Your task to perform on an android device: check out phone information Image 0: 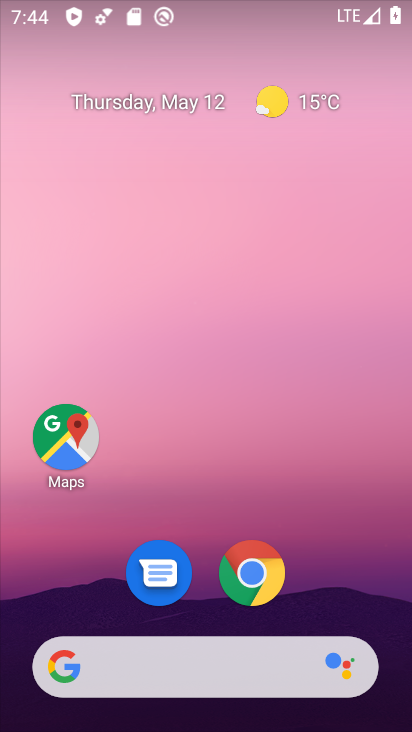
Step 0: drag from (219, 502) to (205, 22)
Your task to perform on an android device: check out phone information Image 1: 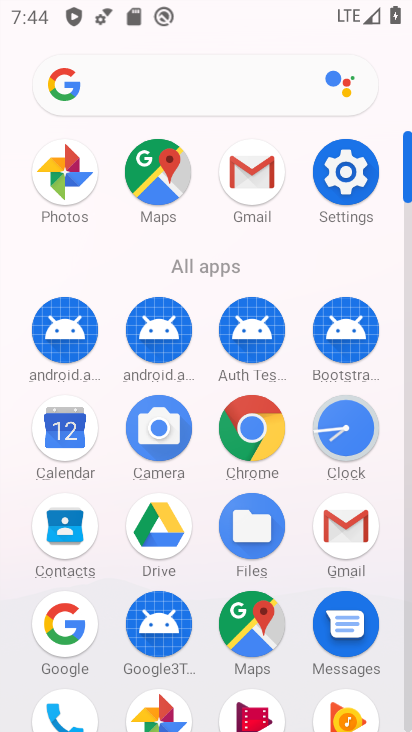
Step 1: drag from (198, 458) to (219, 140)
Your task to perform on an android device: check out phone information Image 2: 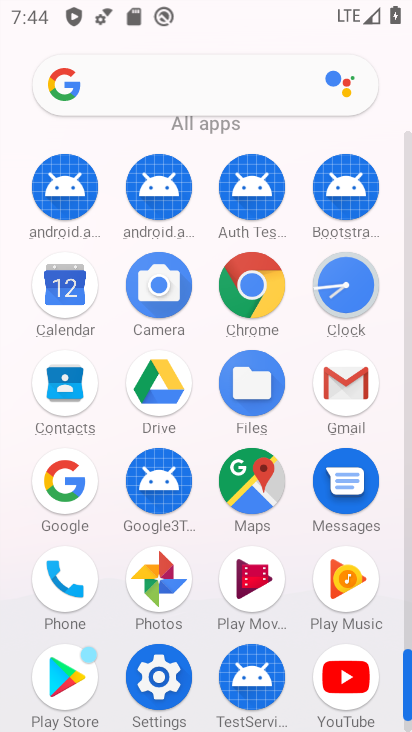
Step 2: click (65, 566)
Your task to perform on an android device: check out phone information Image 3: 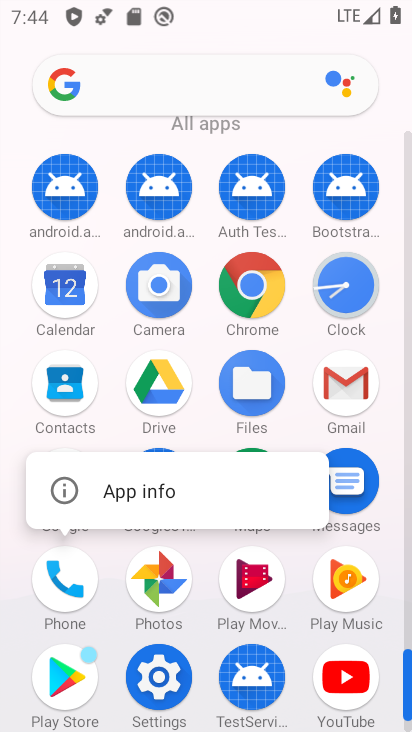
Step 3: click (65, 564)
Your task to perform on an android device: check out phone information Image 4: 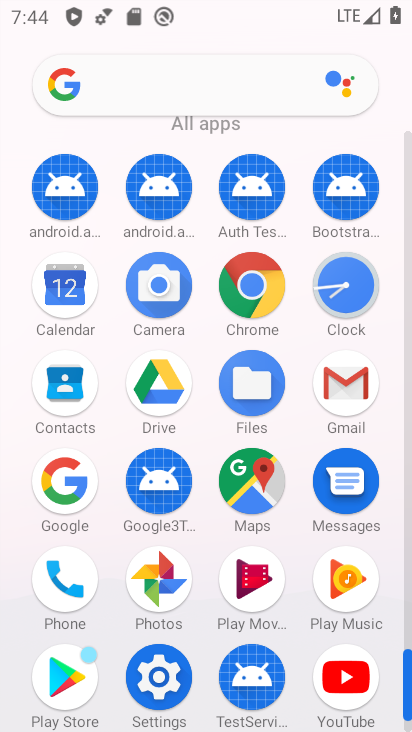
Step 4: click (63, 579)
Your task to perform on an android device: check out phone information Image 5: 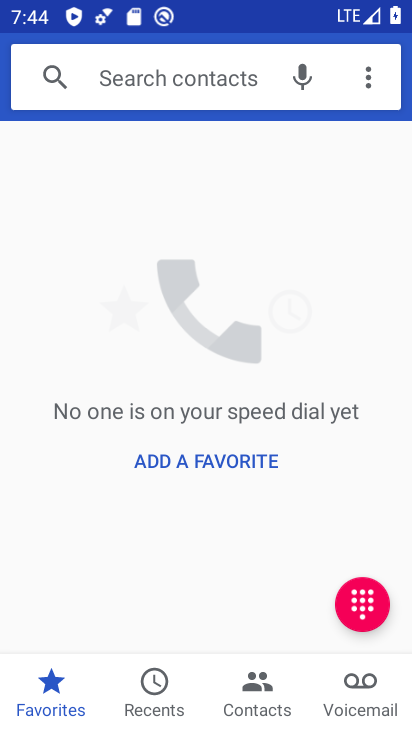
Step 5: click (363, 65)
Your task to perform on an android device: check out phone information Image 6: 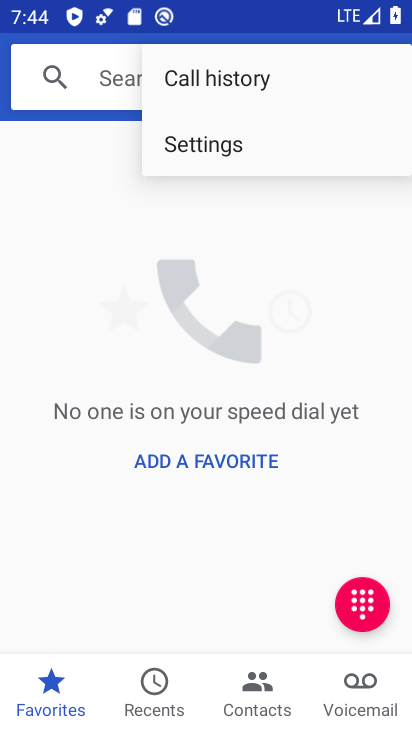
Step 6: click (294, 144)
Your task to perform on an android device: check out phone information Image 7: 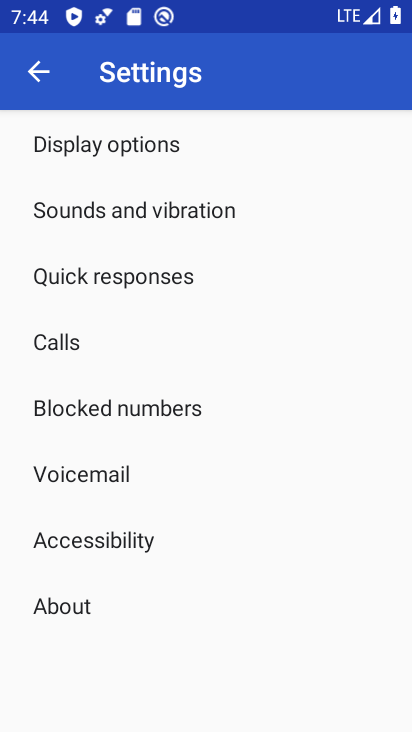
Step 7: click (71, 593)
Your task to perform on an android device: check out phone information Image 8: 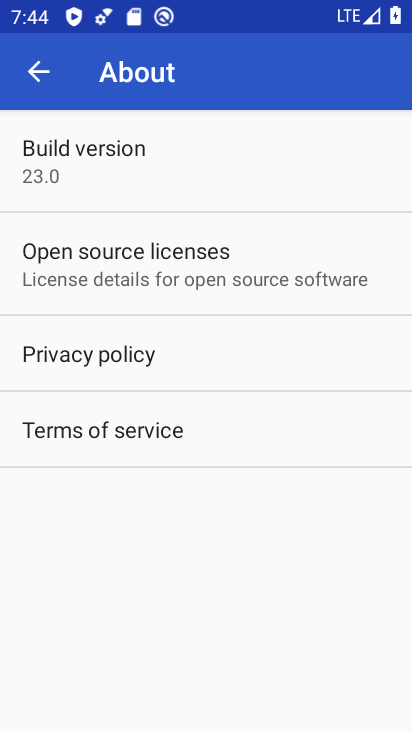
Step 8: task complete